Your task to perform on an android device: Go to network settings Image 0: 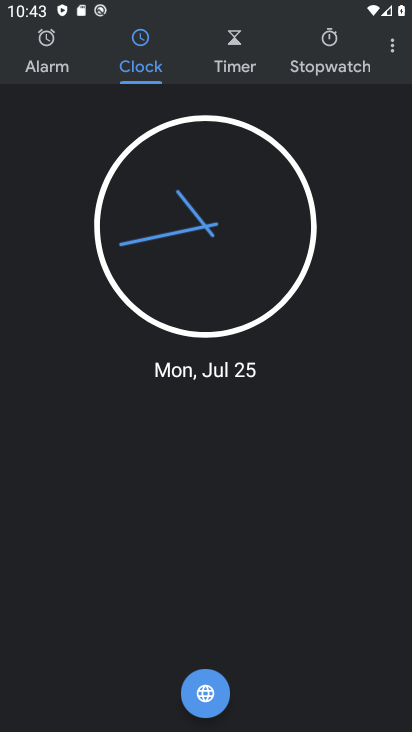
Step 0: drag from (395, 46) to (360, 541)
Your task to perform on an android device: Go to network settings Image 1: 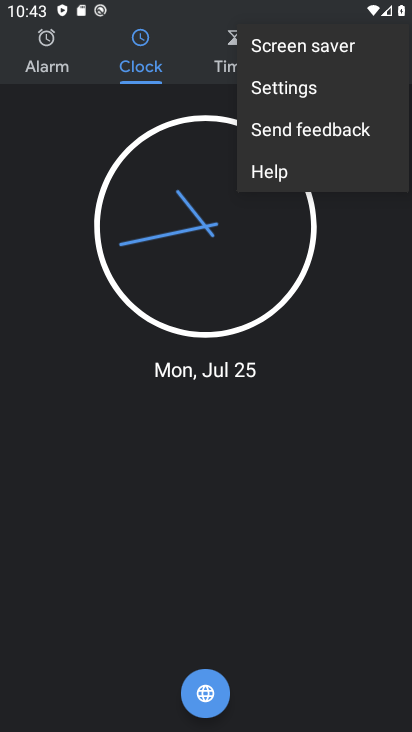
Step 1: press home button
Your task to perform on an android device: Go to network settings Image 2: 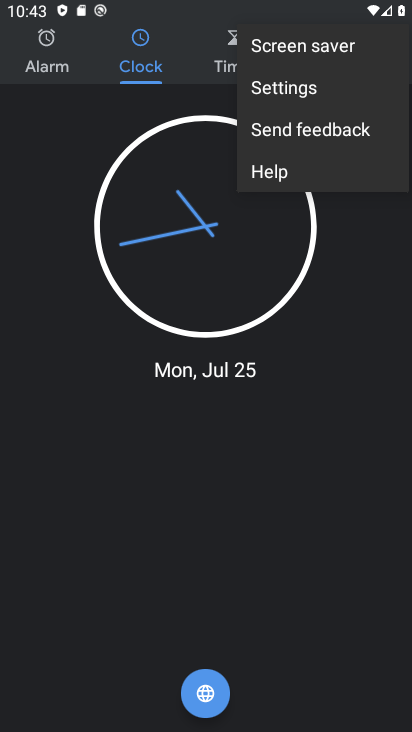
Step 2: click (399, 258)
Your task to perform on an android device: Go to network settings Image 3: 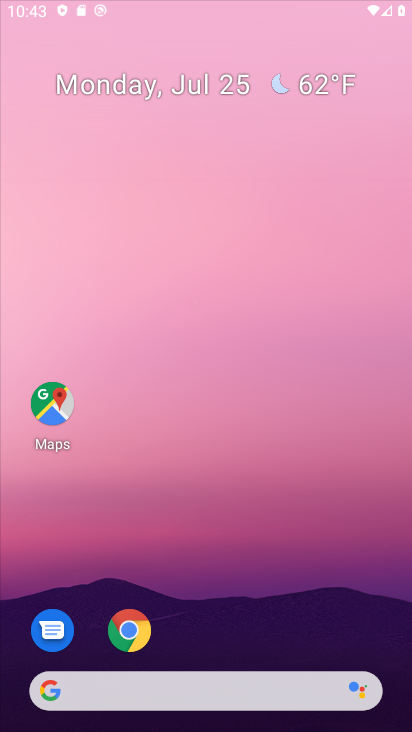
Step 3: drag from (156, 563) to (318, 73)
Your task to perform on an android device: Go to network settings Image 4: 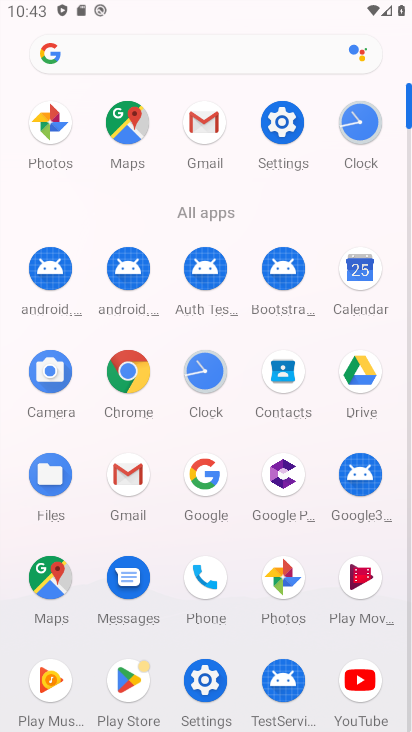
Step 4: click (285, 125)
Your task to perform on an android device: Go to network settings Image 5: 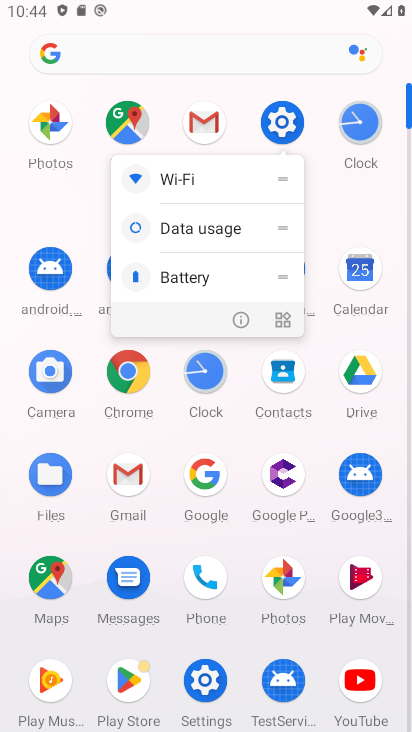
Step 5: click (231, 310)
Your task to perform on an android device: Go to network settings Image 6: 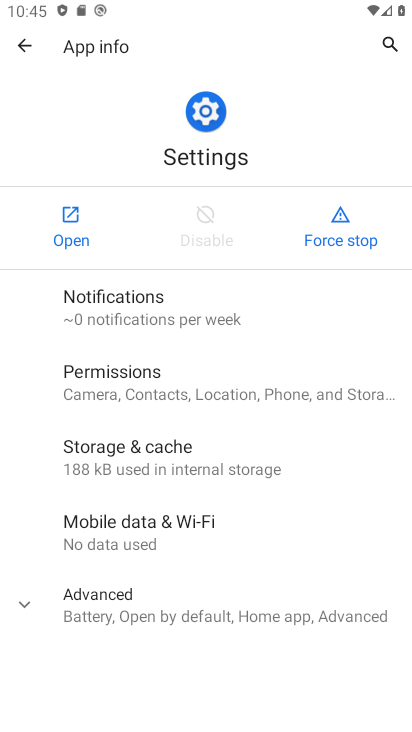
Step 6: click (75, 217)
Your task to perform on an android device: Go to network settings Image 7: 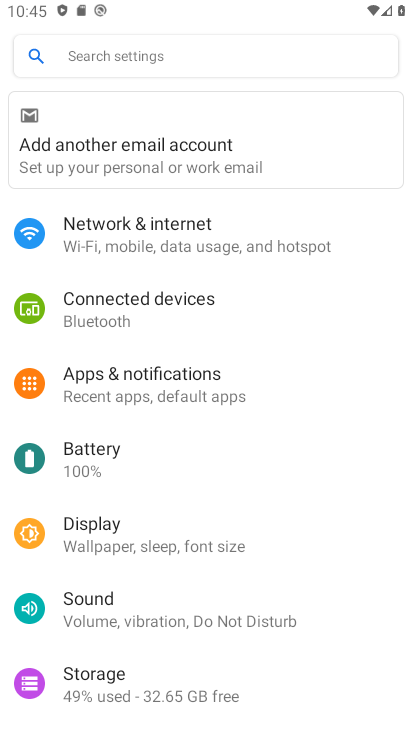
Step 7: click (114, 238)
Your task to perform on an android device: Go to network settings Image 8: 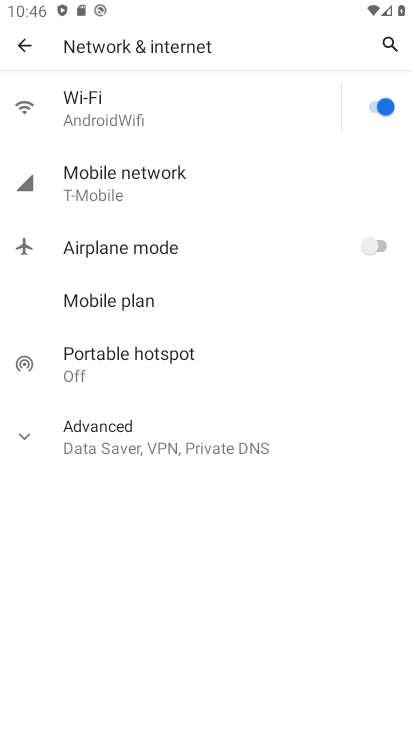
Step 8: click (321, 154)
Your task to perform on an android device: Go to network settings Image 9: 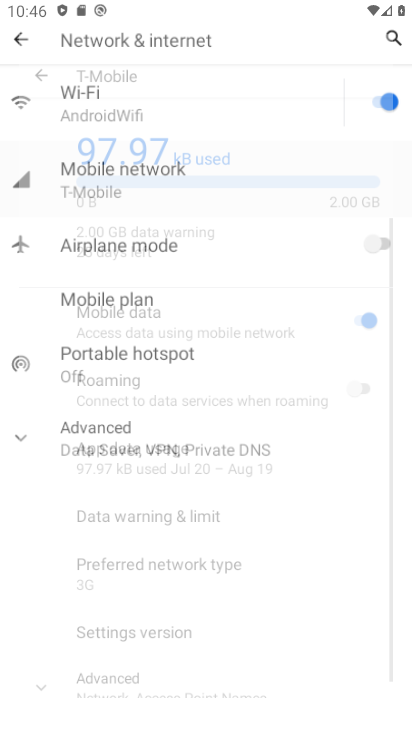
Step 9: task complete